Your task to perform on an android device: all mails in gmail Image 0: 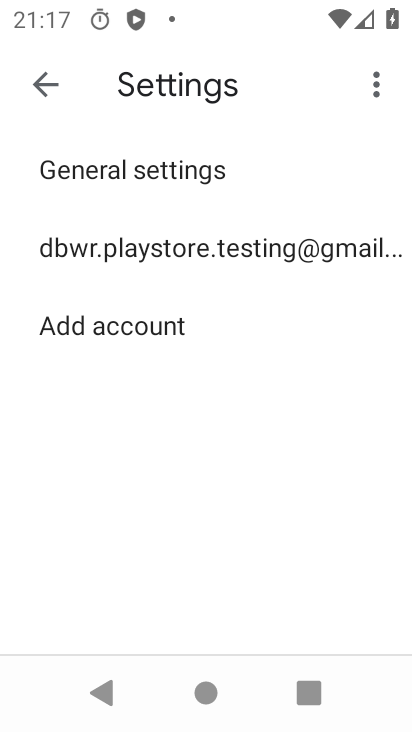
Step 0: press home button
Your task to perform on an android device: all mails in gmail Image 1: 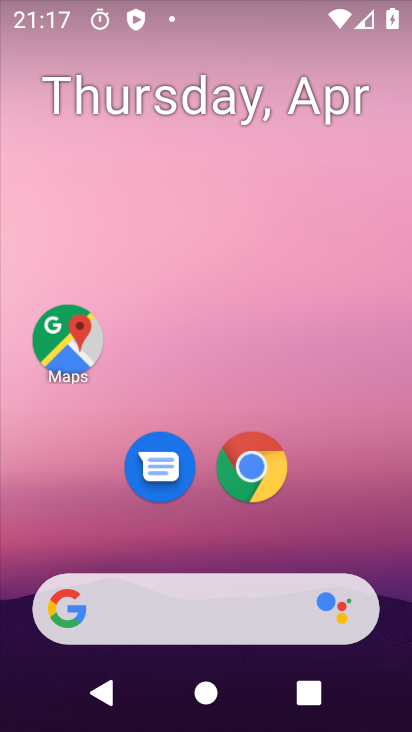
Step 1: drag from (195, 544) to (202, 66)
Your task to perform on an android device: all mails in gmail Image 2: 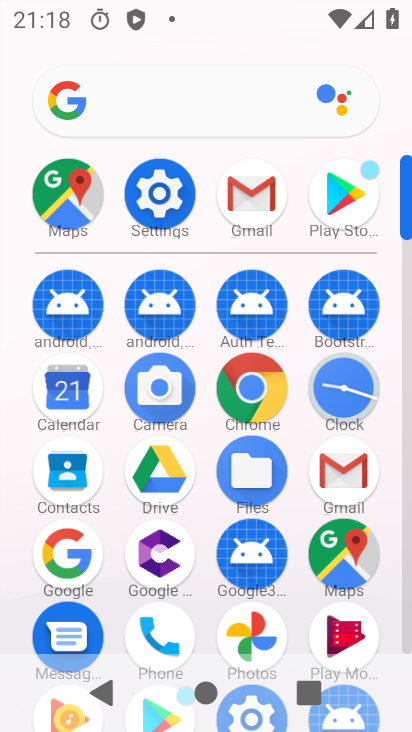
Step 2: click (341, 480)
Your task to perform on an android device: all mails in gmail Image 3: 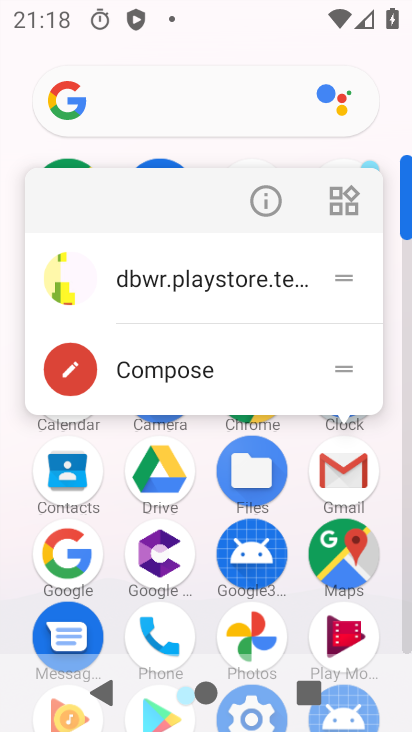
Step 3: click (358, 479)
Your task to perform on an android device: all mails in gmail Image 4: 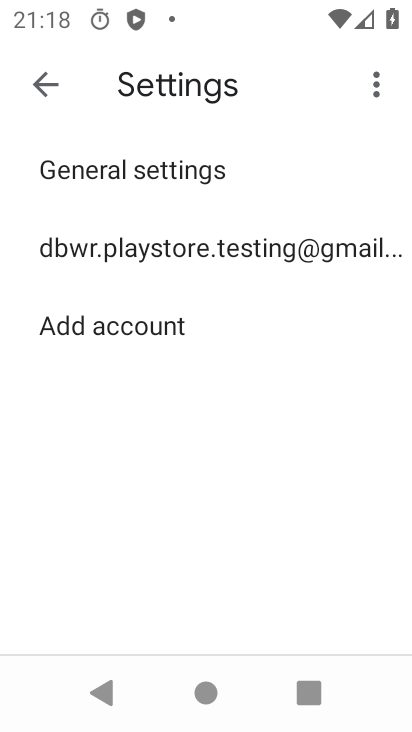
Step 4: click (52, 72)
Your task to perform on an android device: all mails in gmail Image 5: 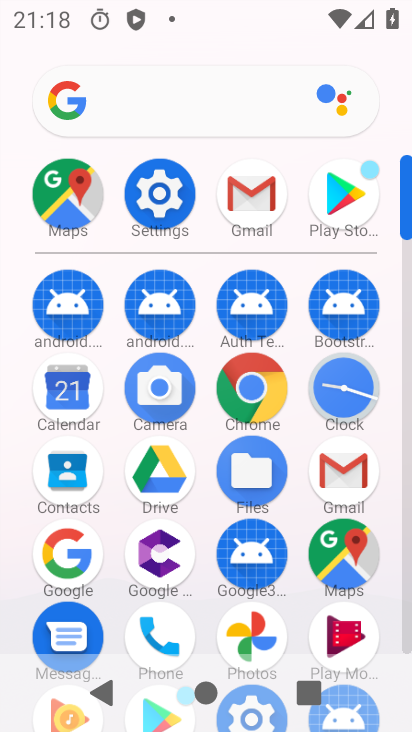
Step 5: click (341, 481)
Your task to perform on an android device: all mails in gmail Image 6: 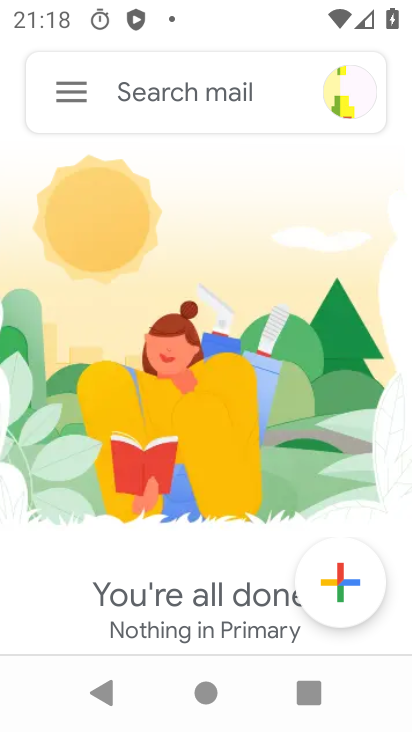
Step 6: click (71, 99)
Your task to perform on an android device: all mails in gmail Image 7: 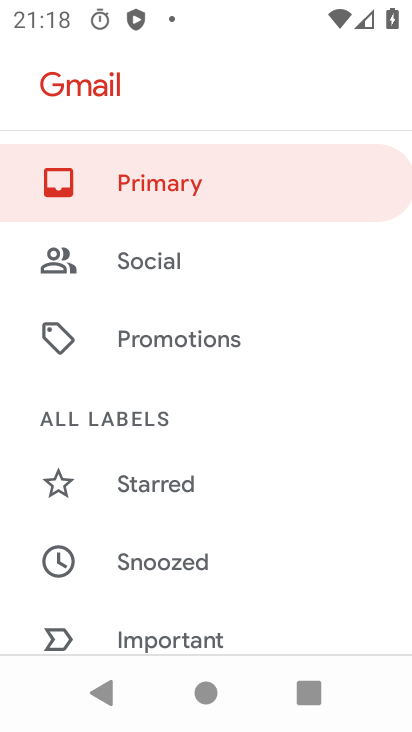
Step 7: drag from (121, 520) to (123, 83)
Your task to perform on an android device: all mails in gmail Image 8: 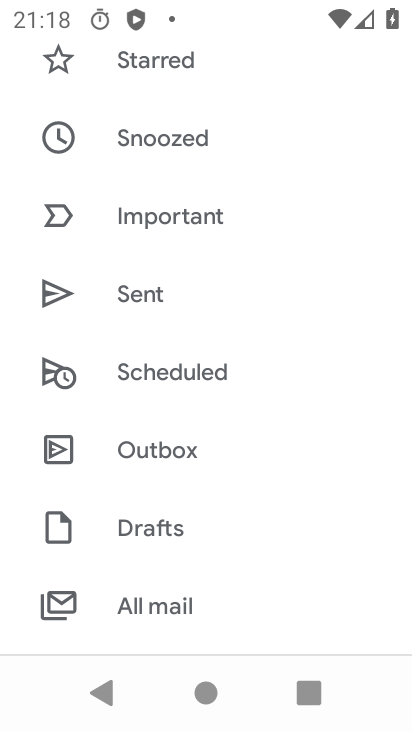
Step 8: click (149, 575)
Your task to perform on an android device: all mails in gmail Image 9: 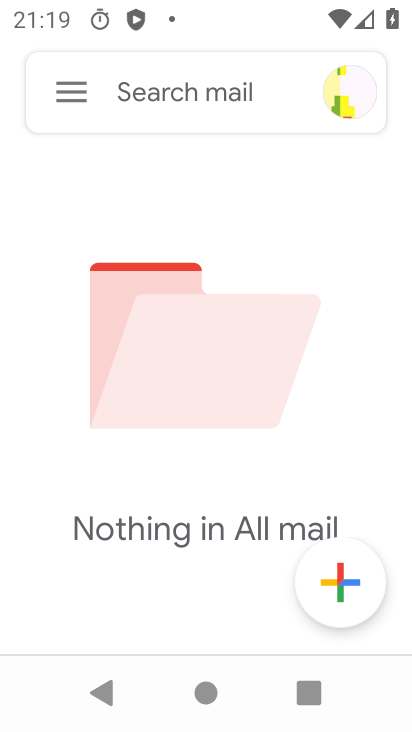
Step 9: task complete